Your task to perform on an android device: see sites visited before in the chrome app Image 0: 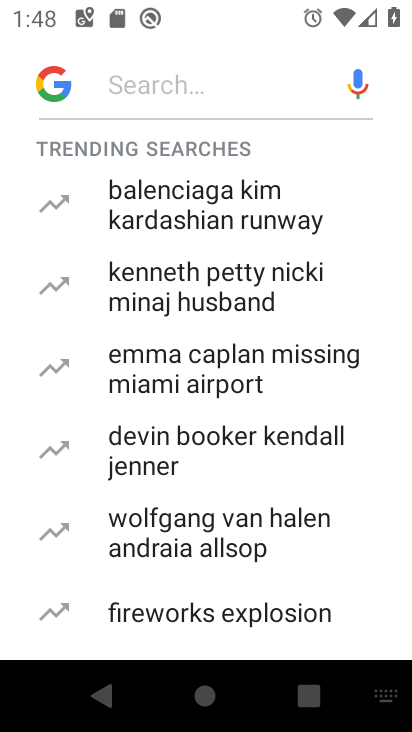
Step 0: press home button
Your task to perform on an android device: see sites visited before in the chrome app Image 1: 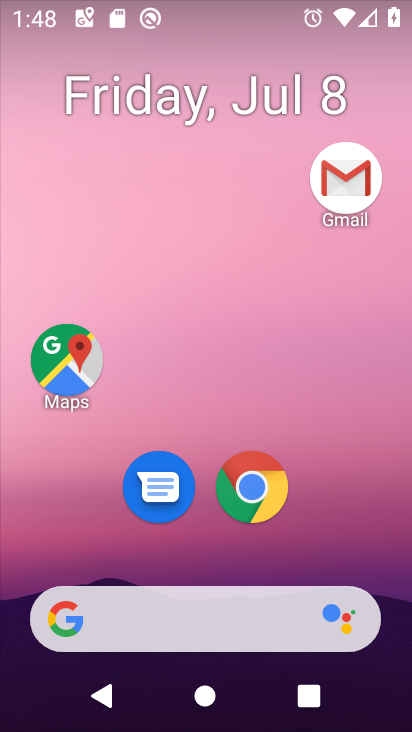
Step 1: drag from (365, 543) to (370, 207)
Your task to perform on an android device: see sites visited before in the chrome app Image 2: 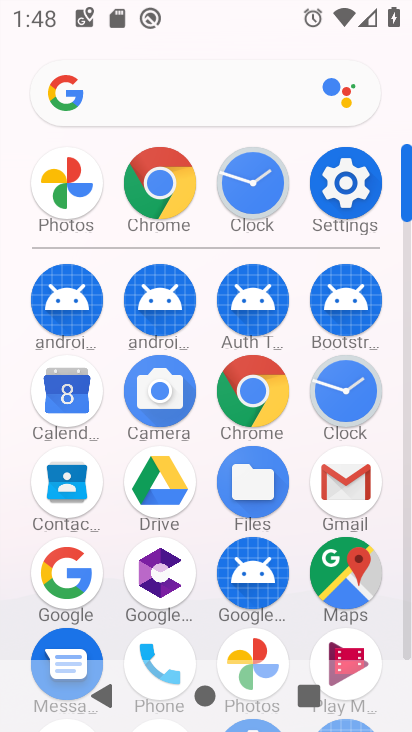
Step 2: click (268, 393)
Your task to perform on an android device: see sites visited before in the chrome app Image 3: 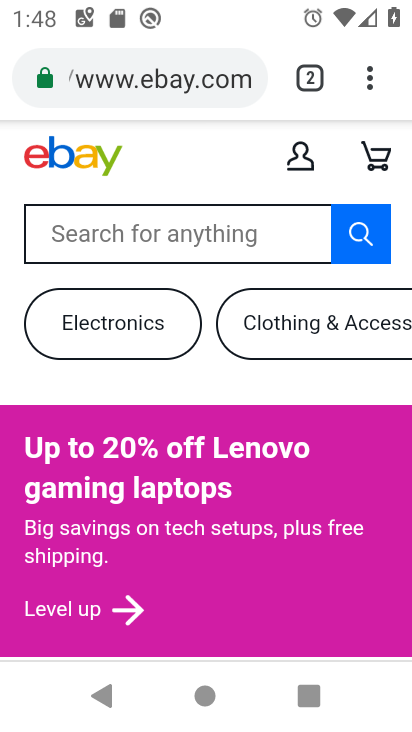
Step 3: click (375, 90)
Your task to perform on an android device: see sites visited before in the chrome app Image 4: 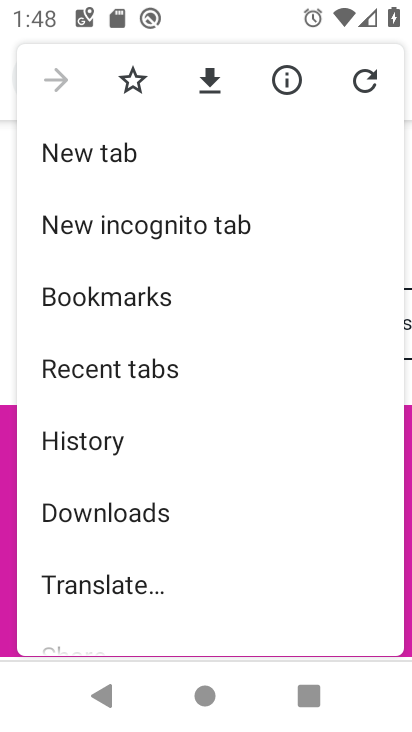
Step 4: click (137, 450)
Your task to perform on an android device: see sites visited before in the chrome app Image 5: 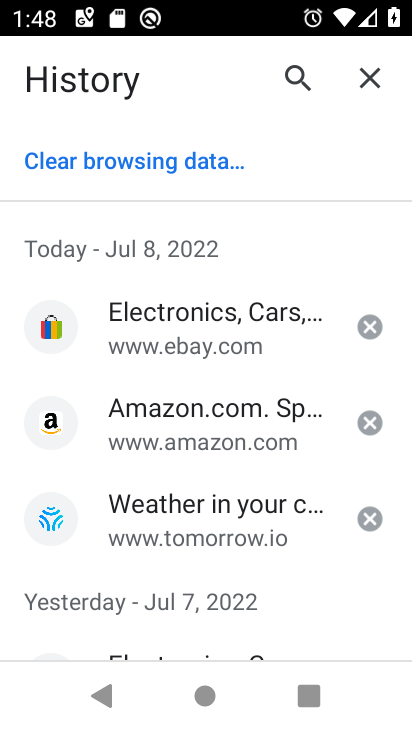
Step 5: task complete